Your task to perform on an android device: Open Maps and search for coffee Image 0: 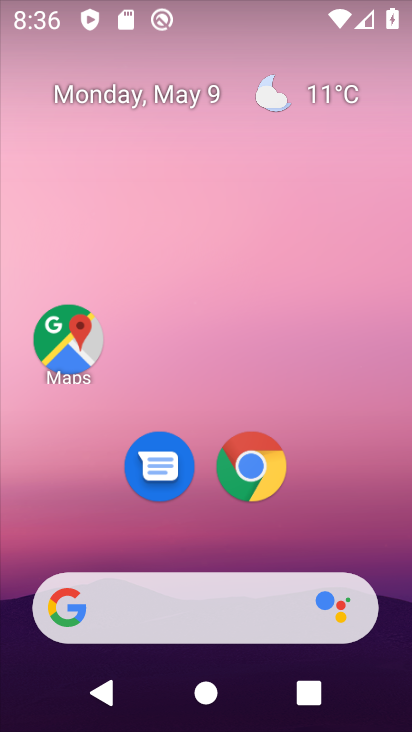
Step 0: click (59, 325)
Your task to perform on an android device: Open Maps and search for coffee Image 1: 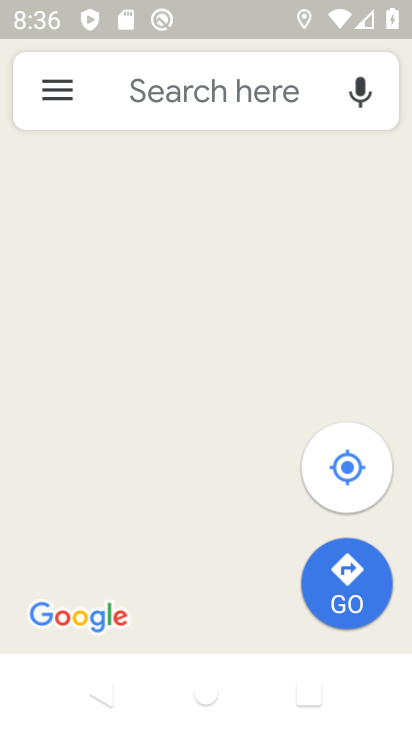
Step 1: click (175, 89)
Your task to perform on an android device: Open Maps and search for coffee Image 2: 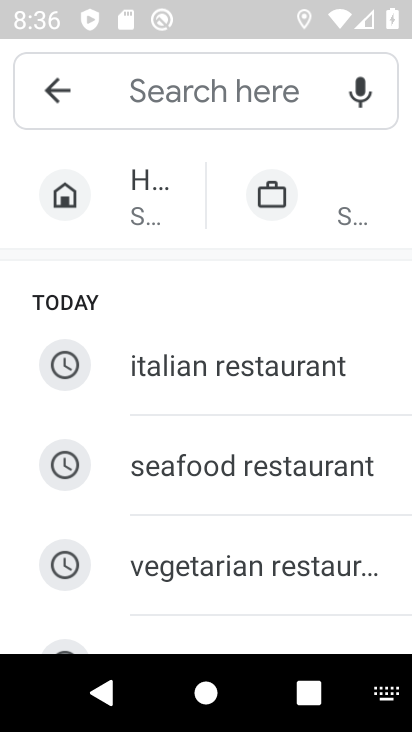
Step 2: type "coffee"
Your task to perform on an android device: Open Maps and search for coffee Image 3: 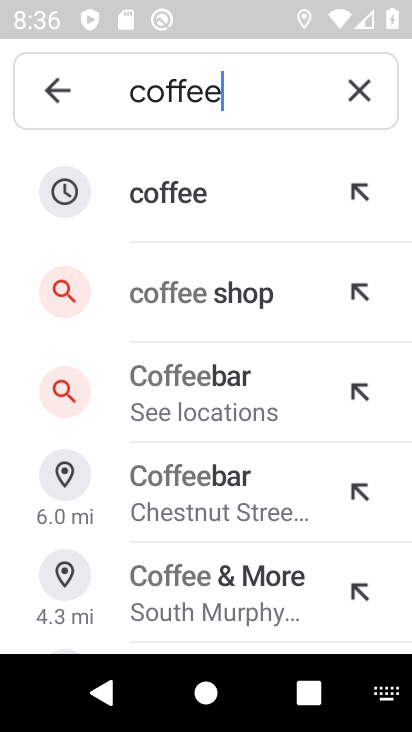
Step 3: click (181, 192)
Your task to perform on an android device: Open Maps and search for coffee Image 4: 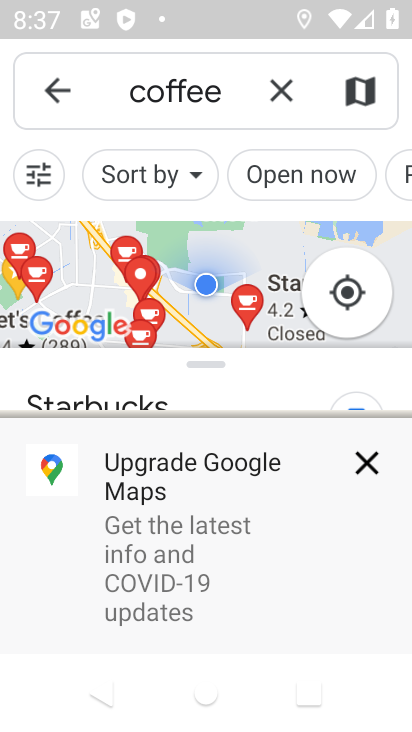
Step 4: click (366, 457)
Your task to perform on an android device: Open Maps and search for coffee Image 5: 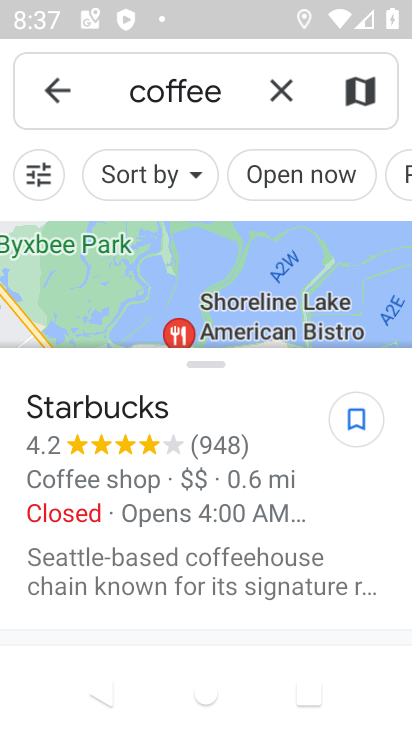
Step 5: task complete